Your task to perform on an android device: See recent photos Image 0: 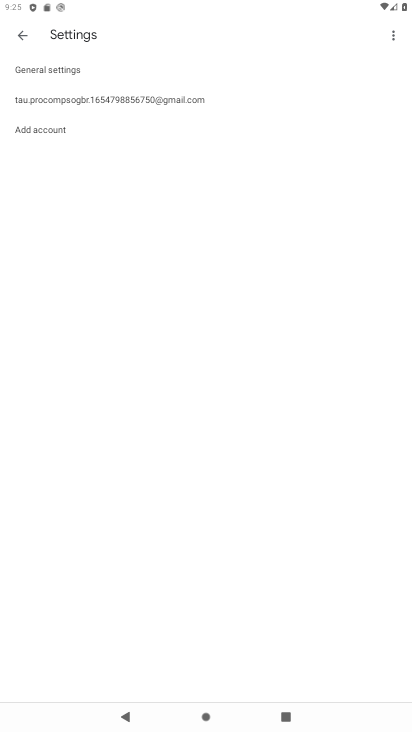
Step 0: press home button
Your task to perform on an android device: See recent photos Image 1: 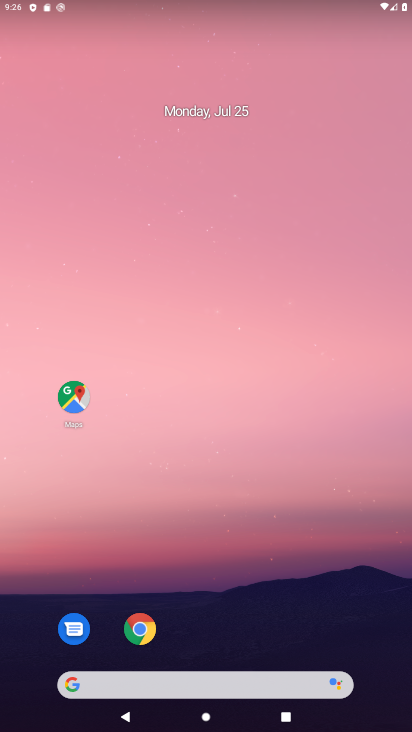
Step 1: drag from (308, 639) to (209, 0)
Your task to perform on an android device: See recent photos Image 2: 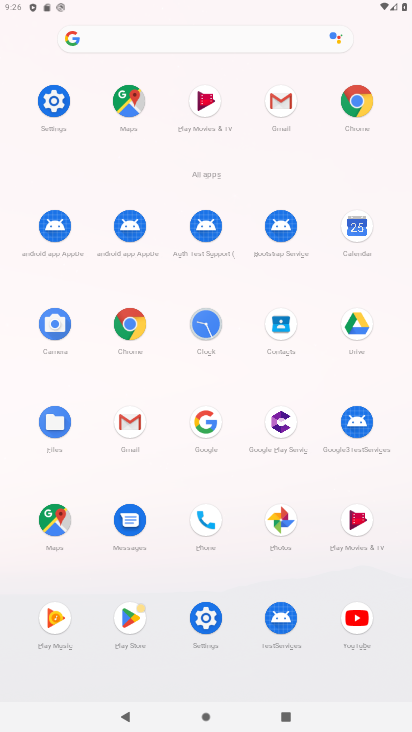
Step 2: click (281, 521)
Your task to perform on an android device: See recent photos Image 3: 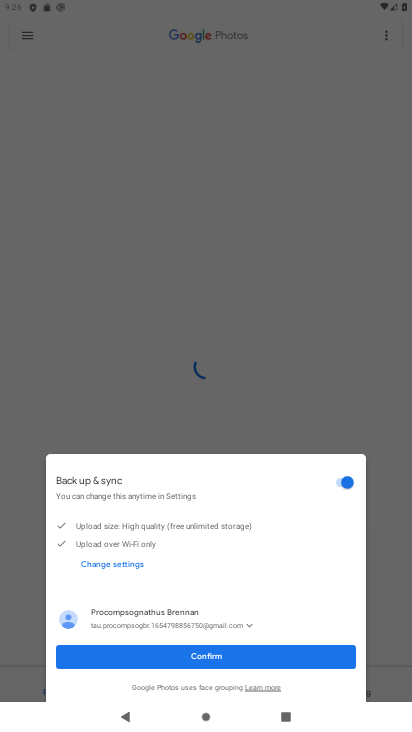
Step 3: click (287, 655)
Your task to perform on an android device: See recent photos Image 4: 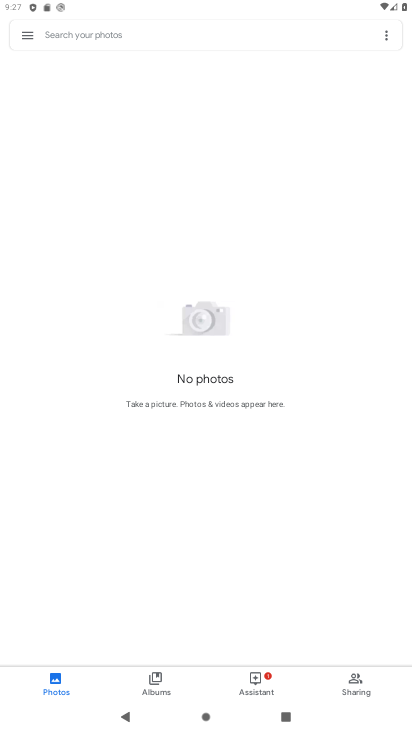
Step 4: task complete